Your task to perform on an android device: What's the weather today? Image 0: 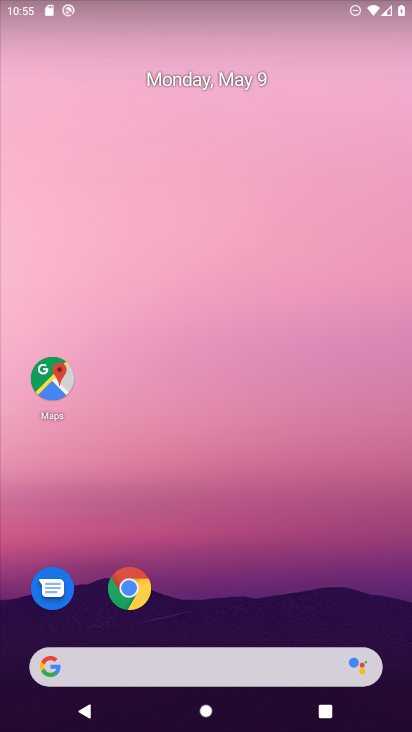
Step 0: click (208, 664)
Your task to perform on an android device: What's the weather today? Image 1: 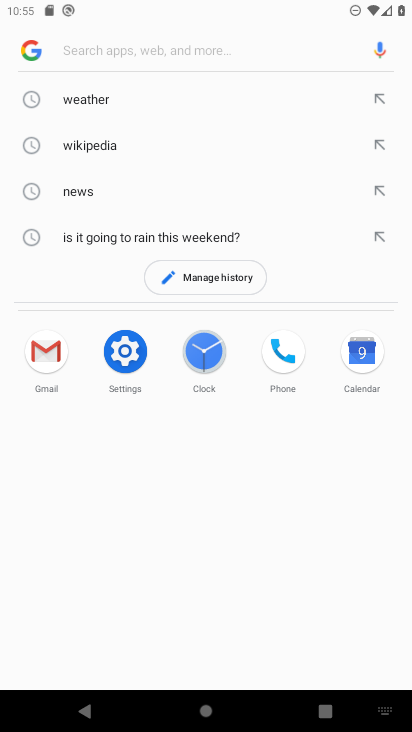
Step 1: click (176, 104)
Your task to perform on an android device: What's the weather today? Image 2: 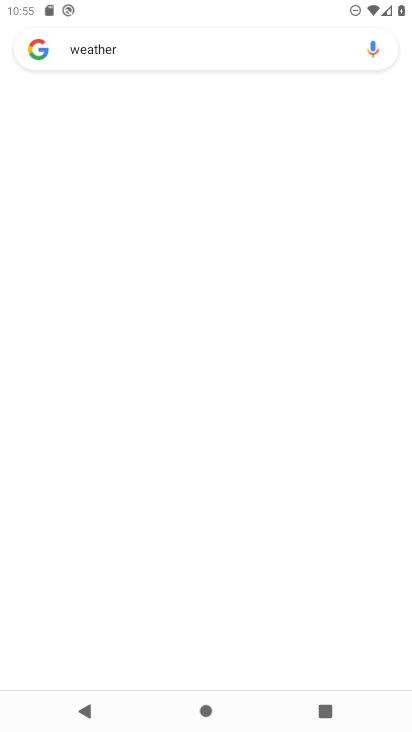
Step 2: task complete